Your task to perform on an android device: Open the Play Movies app and select the watchlist tab. Image 0: 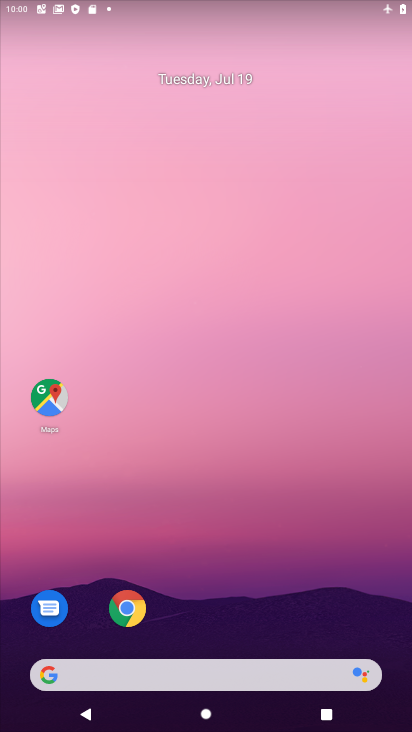
Step 0: drag from (295, 490) to (245, 108)
Your task to perform on an android device: Open the Play Movies app and select the watchlist tab. Image 1: 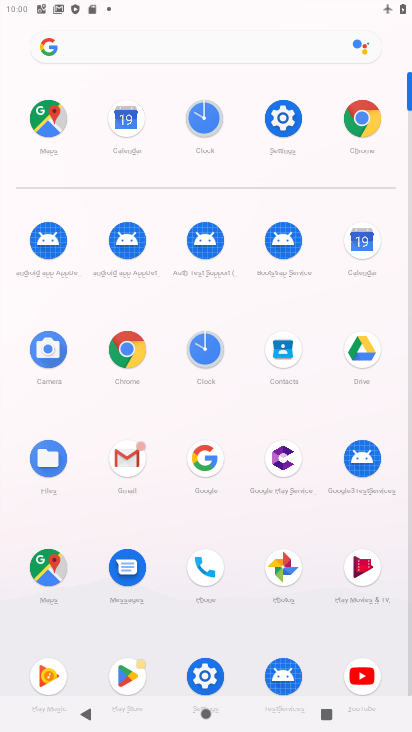
Step 1: click (360, 574)
Your task to perform on an android device: Open the Play Movies app and select the watchlist tab. Image 2: 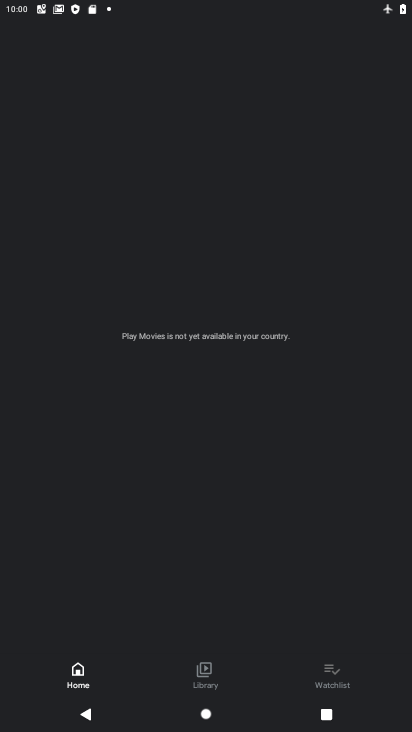
Step 2: click (338, 663)
Your task to perform on an android device: Open the Play Movies app and select the watchlist tab. Image 3: 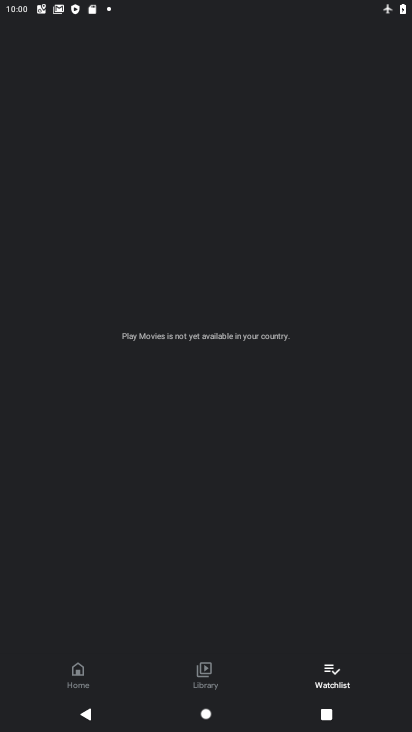
Step 3: task complete